Your task to perform on an android device: delete browsing data in the chrome app Image 0: 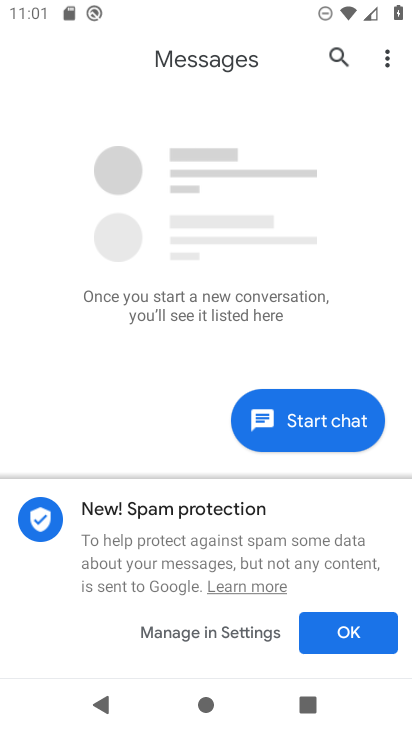
Step 0: press home button
Your task to perform on an android device: delete browsing data in the chrome app Image 1: 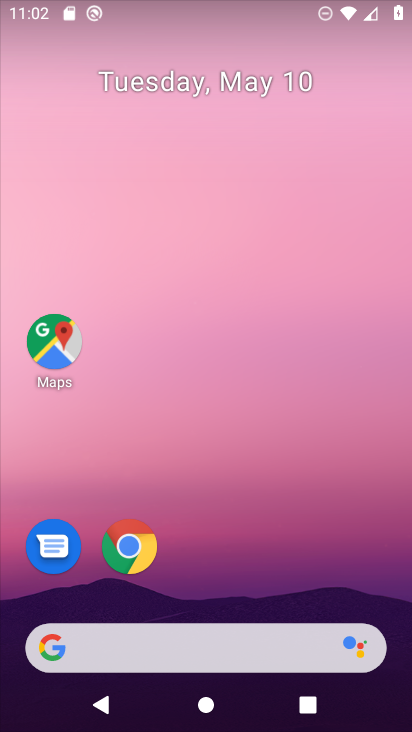
Step 1: click (115, 548)
Your task to perform on an android device: delete browsing data in the chrome app Image 2: 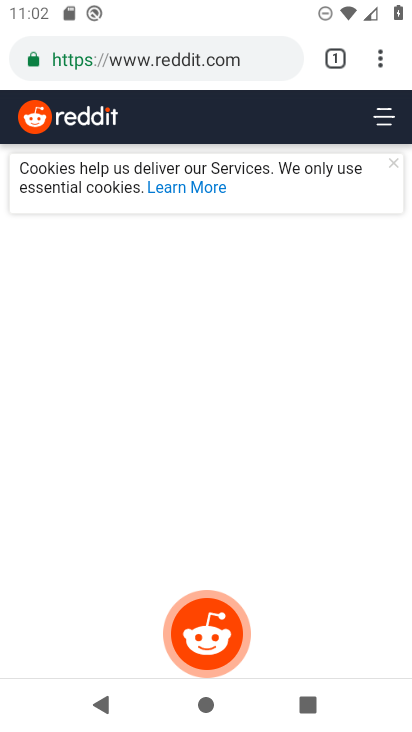
Step 2: drag from (380, 64) to (246, 340)
Your task to perform on an android device: delete browsing data in the chrome app Image 3: 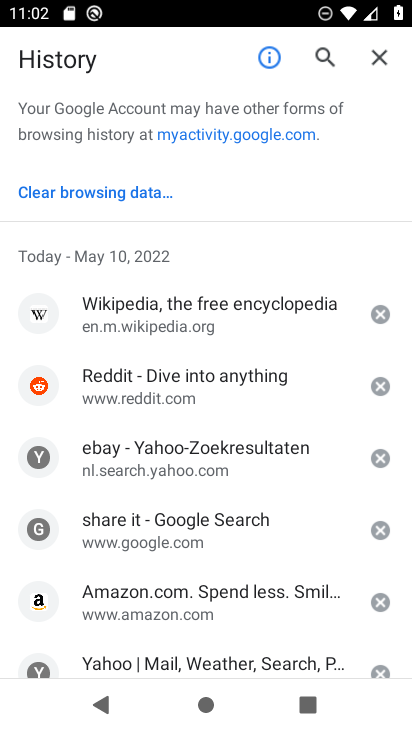
Step 3: click (127, 194)
Your task to perform on an android device: delete browsing data in the chrome app Image 4: 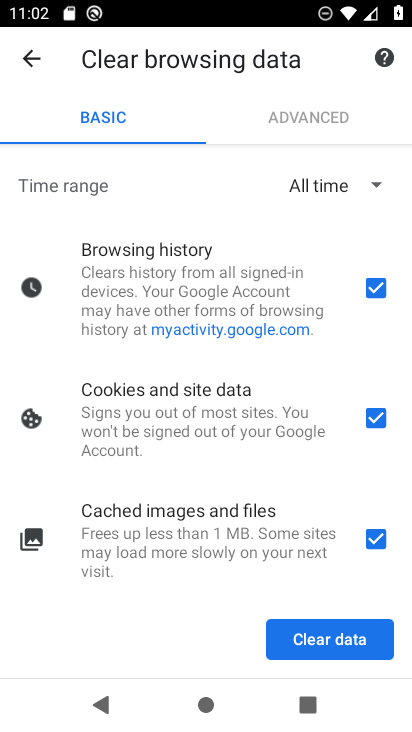
Step 4: click (372, 625)
Your task to perform on an android device: delete browsing data in the chrome app Image 5: 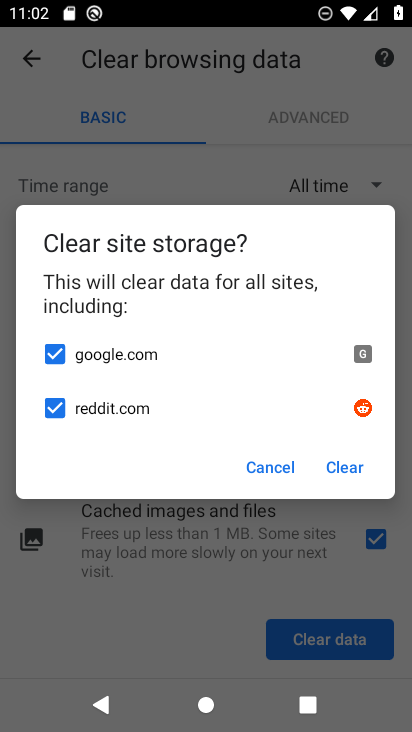
Step 5: click (346, 469)
Your task to perform on an android device: delete browsing data in the chrome app Image 6: 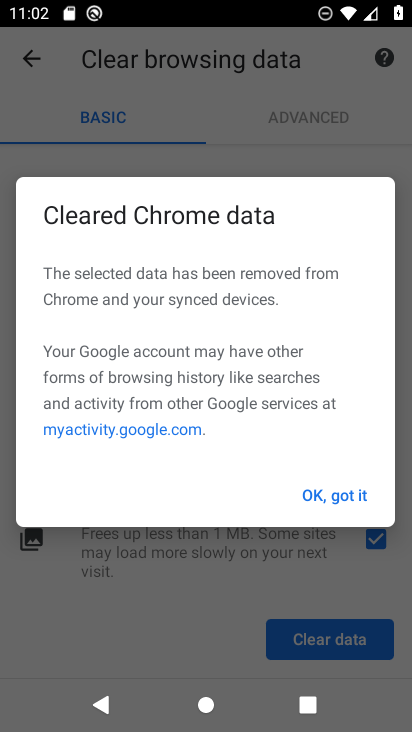
Step 6: task complete